Your task to perform on an android device: turn off sleep mode Image 0: 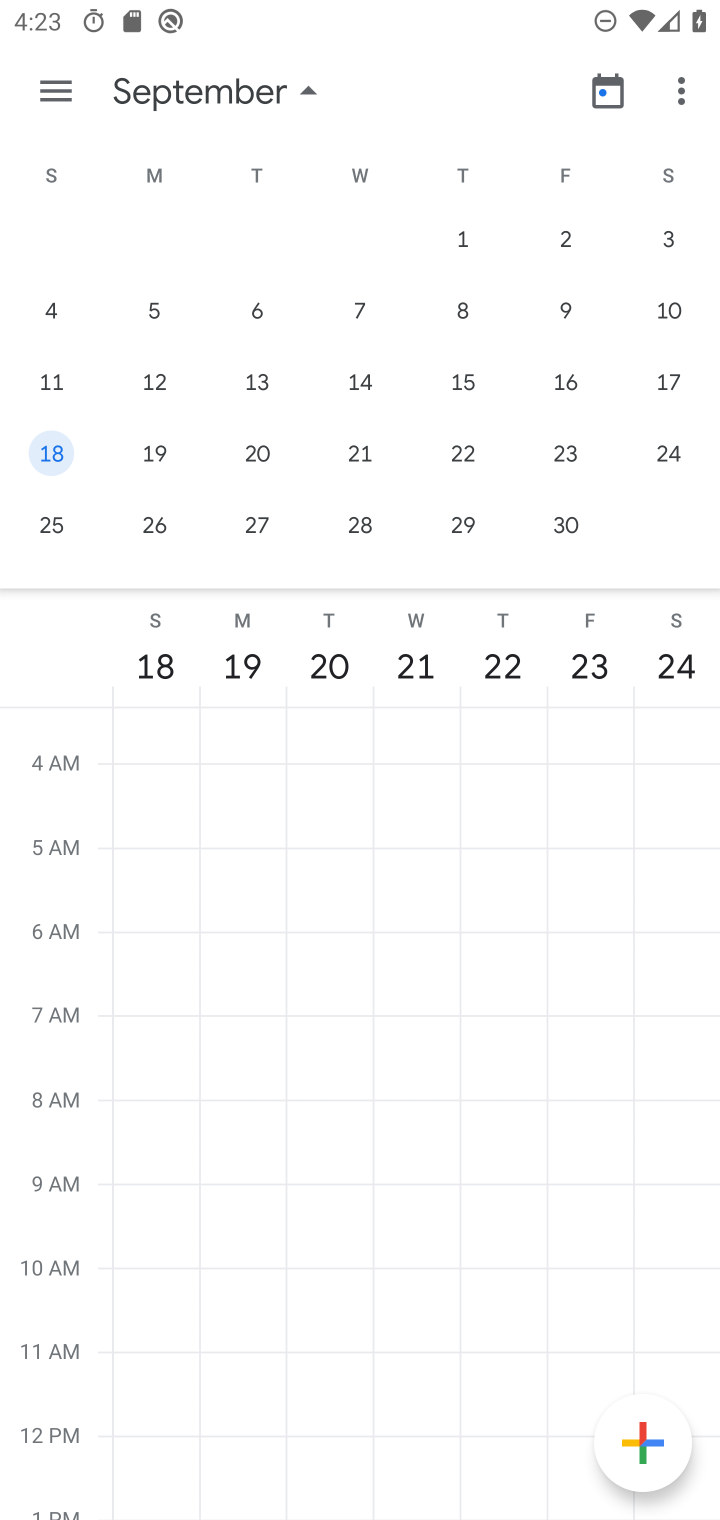
Step 0: press home button
Your task to perform on an android device: turn off sleep mode Image 1: 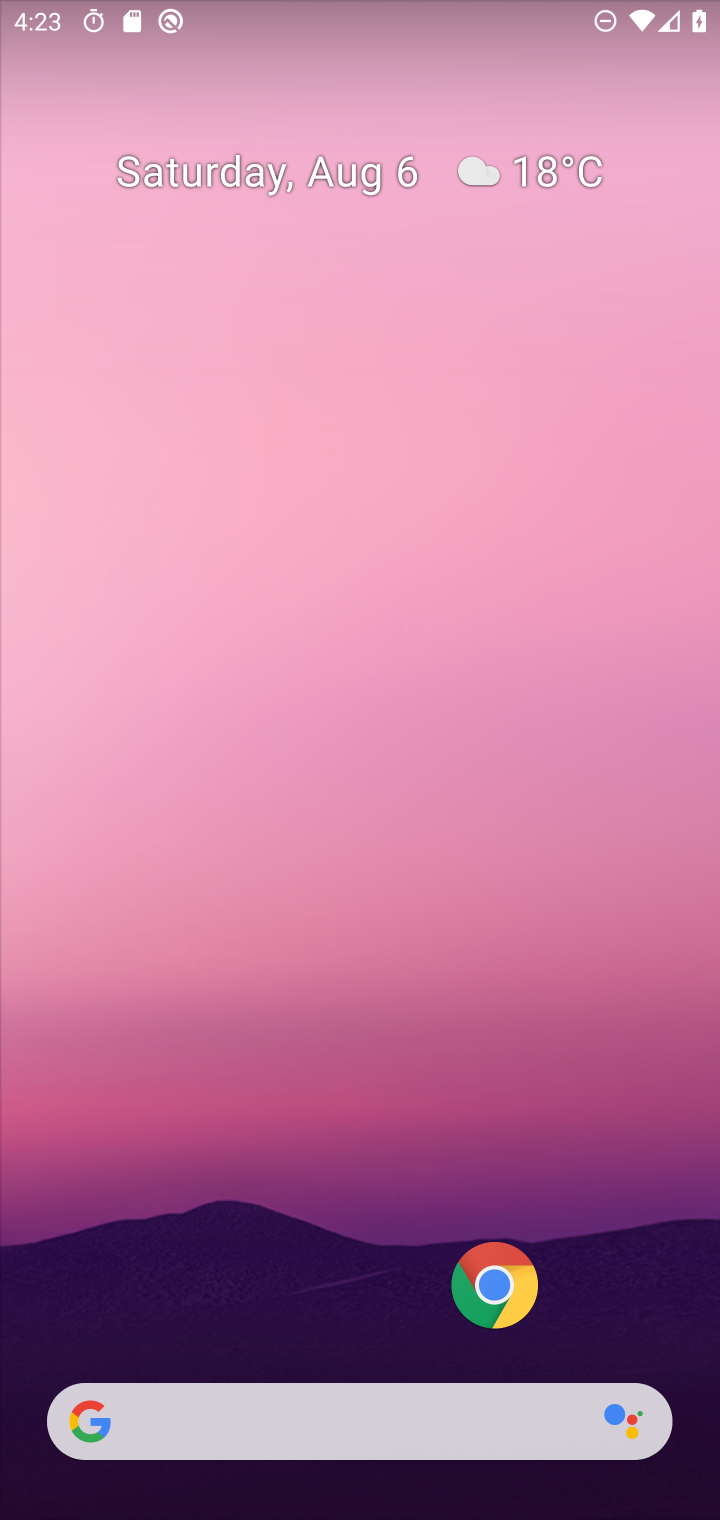
Step 1: drag from (348, 1315) to (332, 163)
Your task to perform on an android device: turn off sleep mode Image 2: 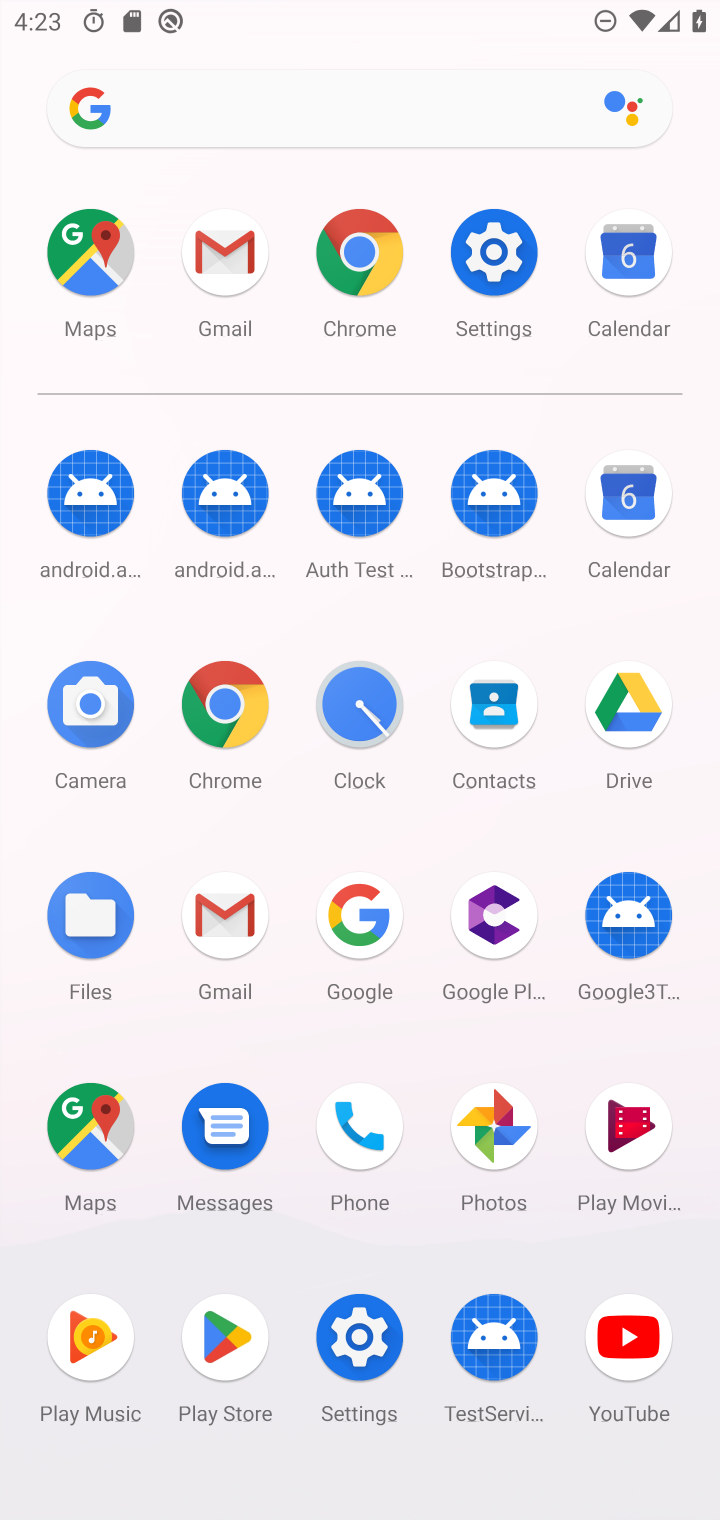
Step 2: click (469, 259)
Your task to perform on an android device: turn off sleep mode Image 3: 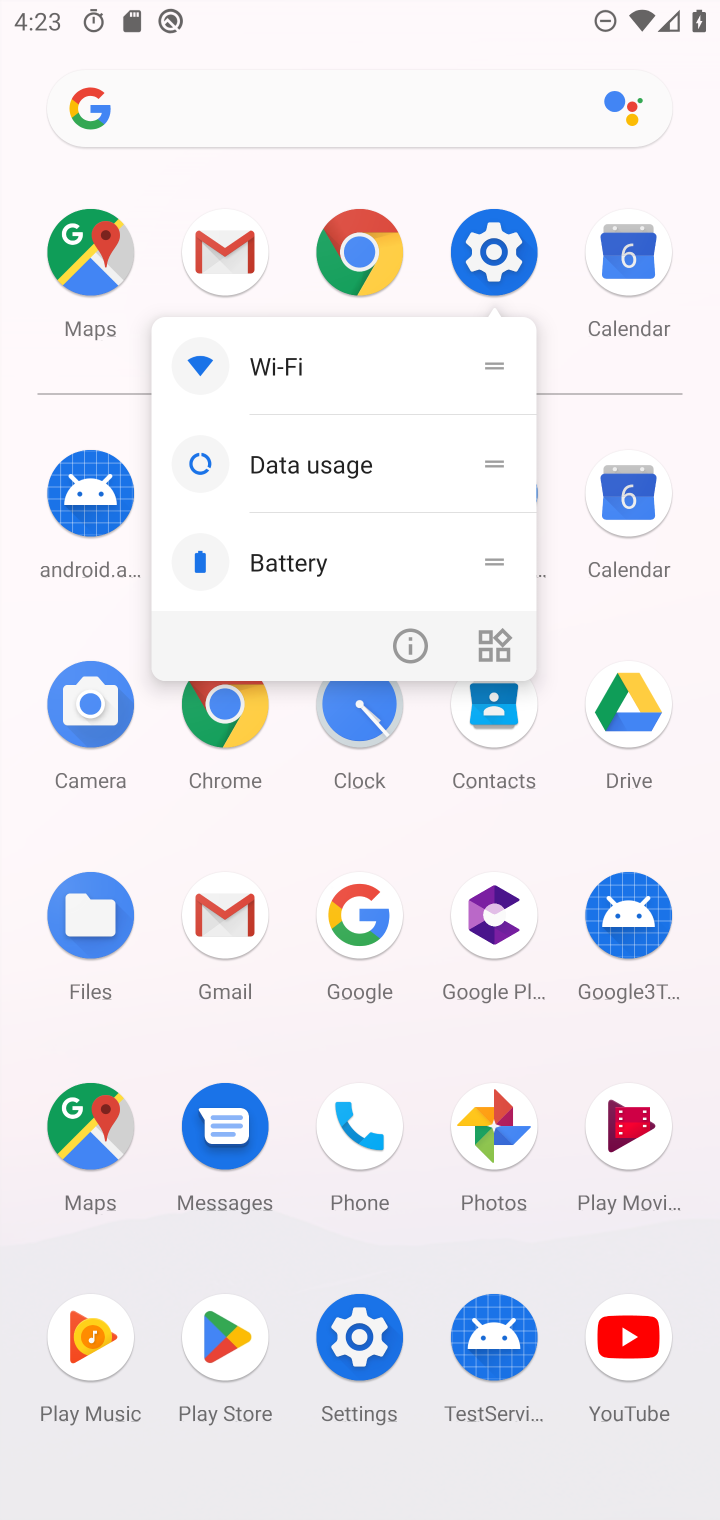
Step 3: click (492, 244)
Your task to perform on an android device: turn off sleep mode Image 4: 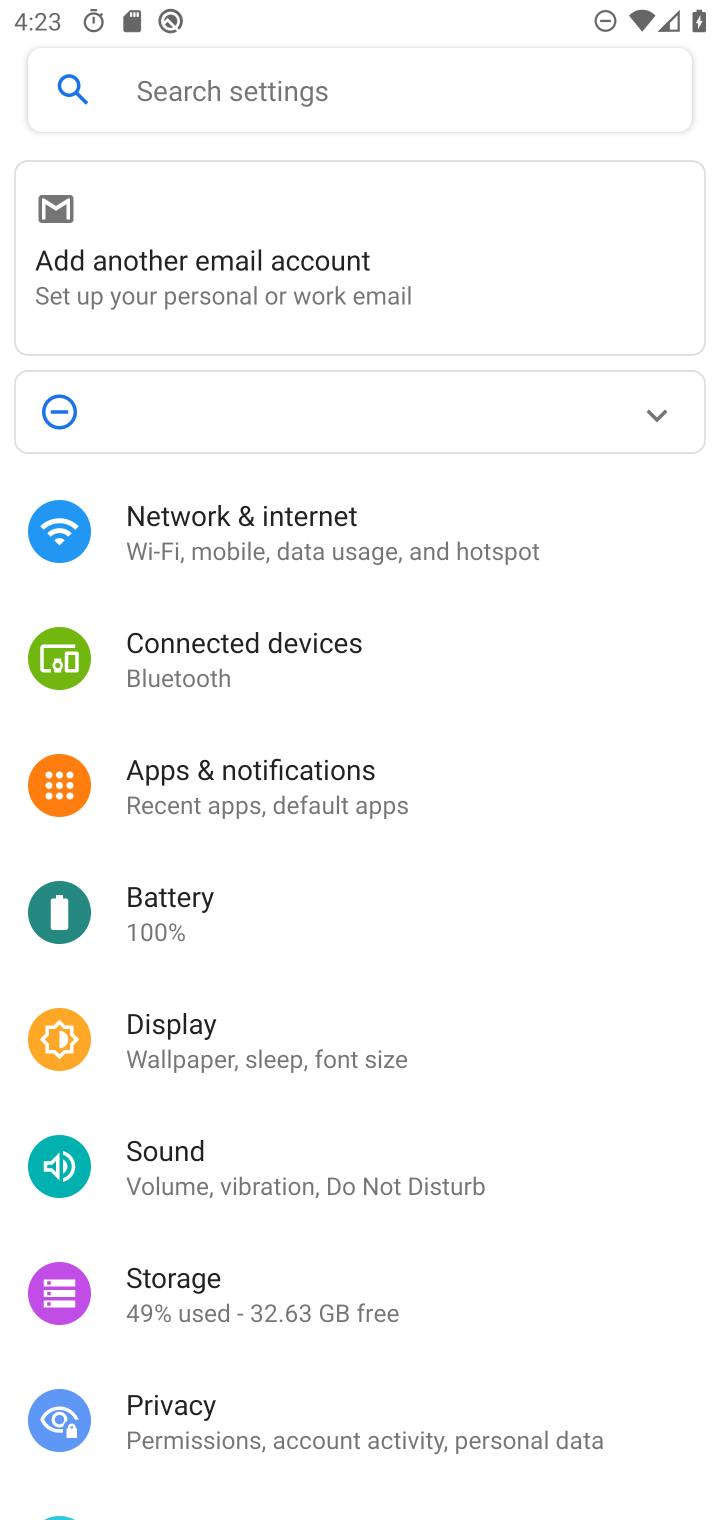
Step 4: click (250, 1021)
Your task to perform on an android device: turn off sleep mode Image 5: 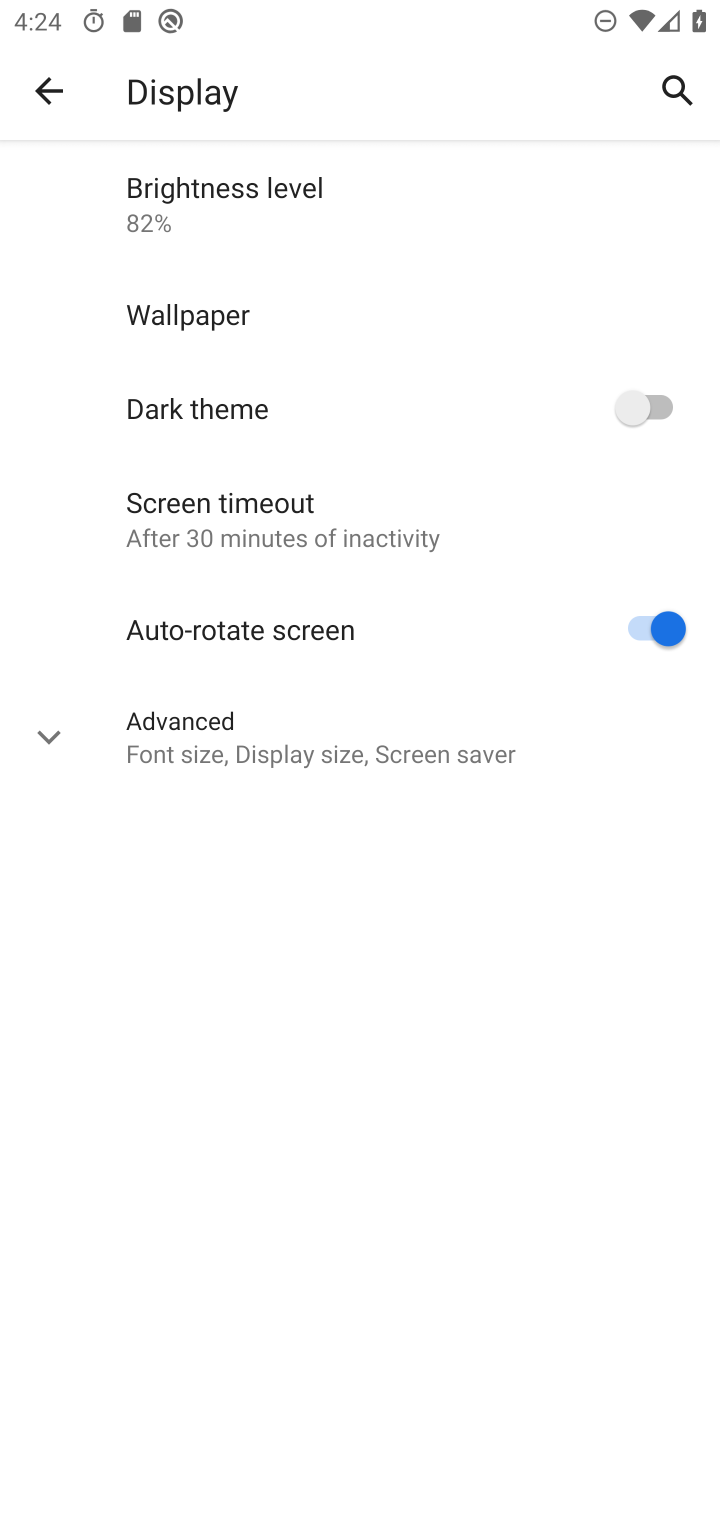
Step 5: click (52, 755)
Your task to perform on an android device: turn off sleep mode Image 6: 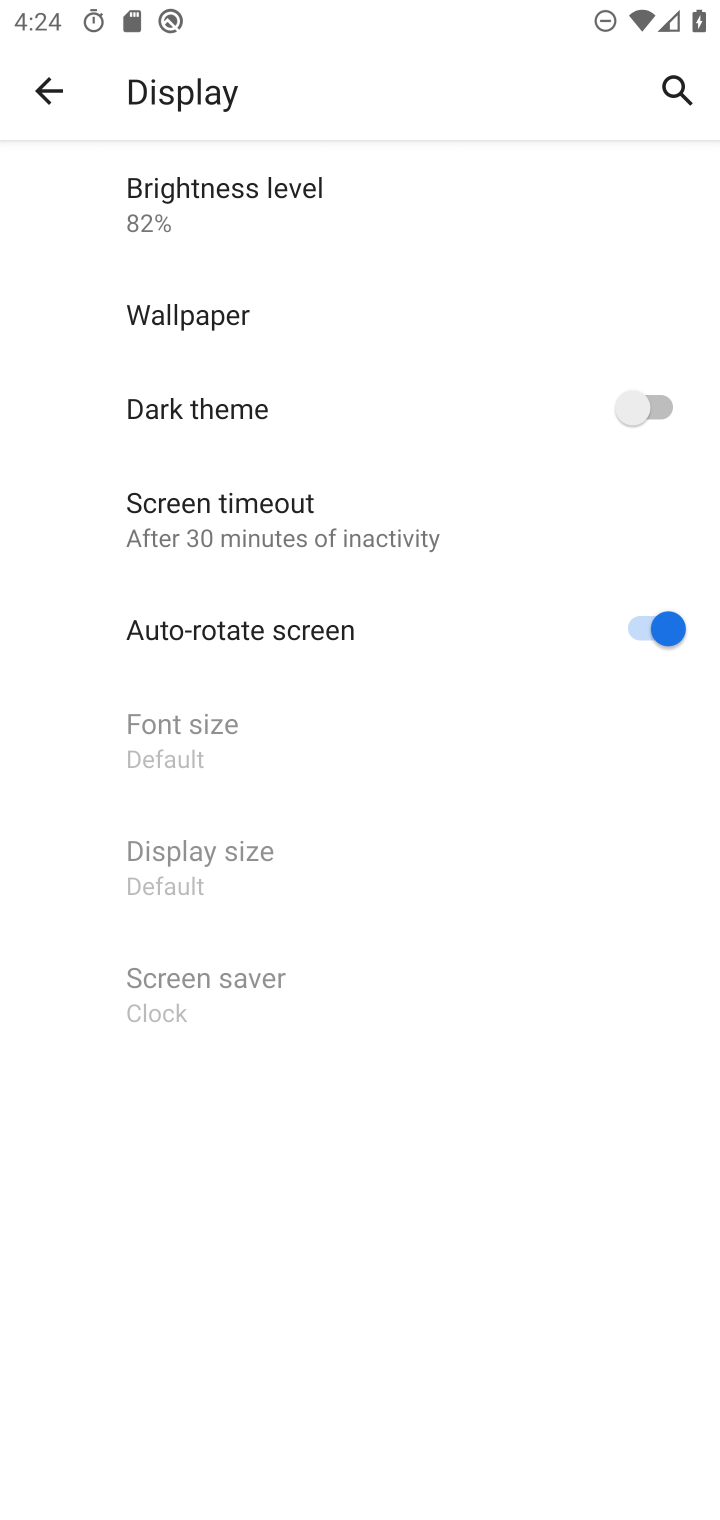
Step 6: task complete